Your task to perform on an android device: toggle wifi Image 0: 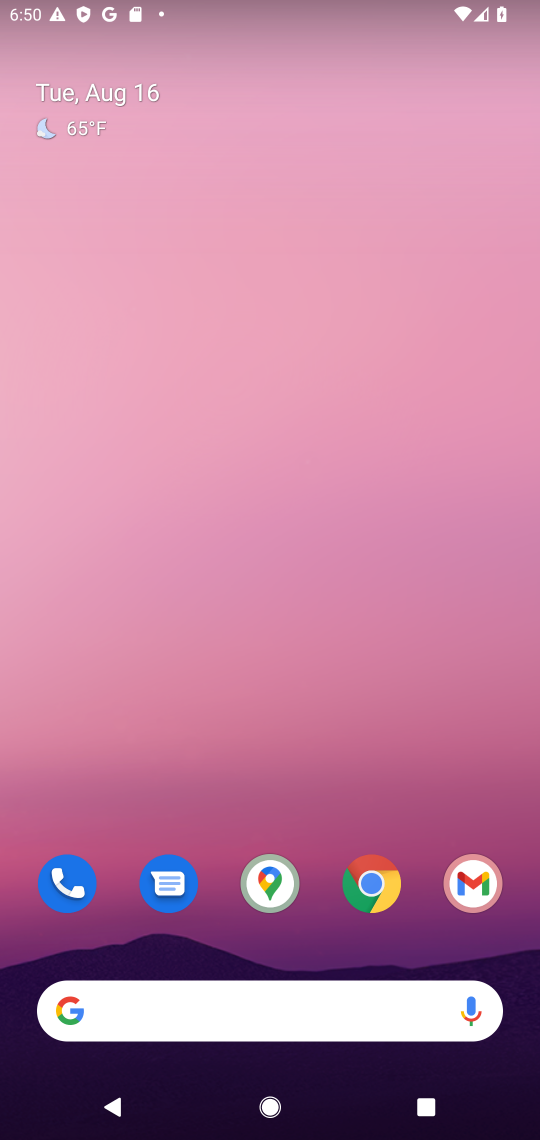
Step 0: drag from (257, 994) to (282, 126)
Your task to perform on an android device: toggle wifi Image 1: 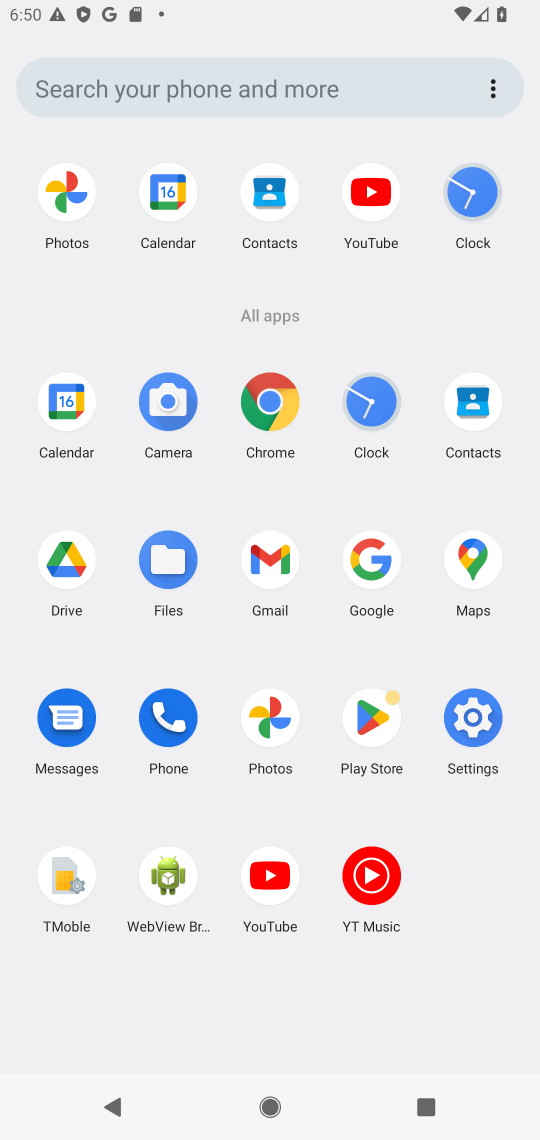
Step 1: click (474, 720)
Your task to perform on an android device: toggle wifi Image 2: 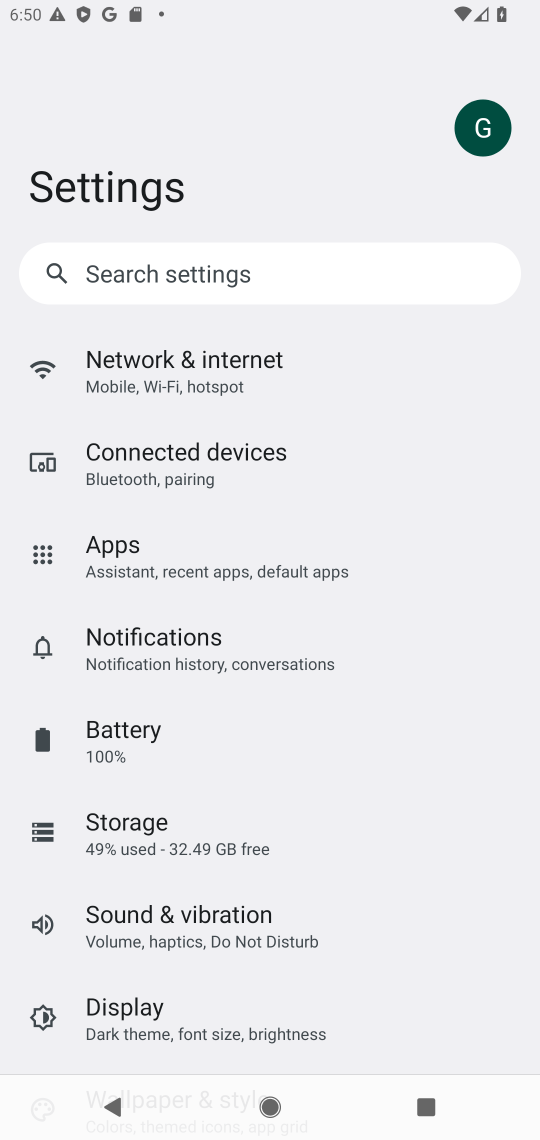
Step 2: click (208, 386)
Your task to perform on an android device: toggle wifi Image 3: 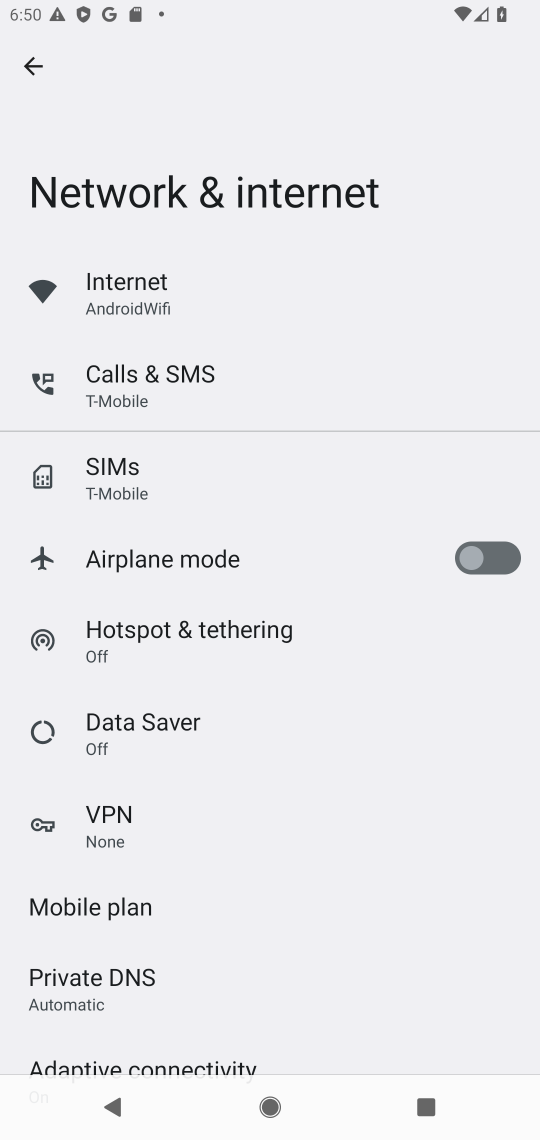
Step 3: click (151, 291)
Your task to perform on an android device: toggle wifi Image 4: 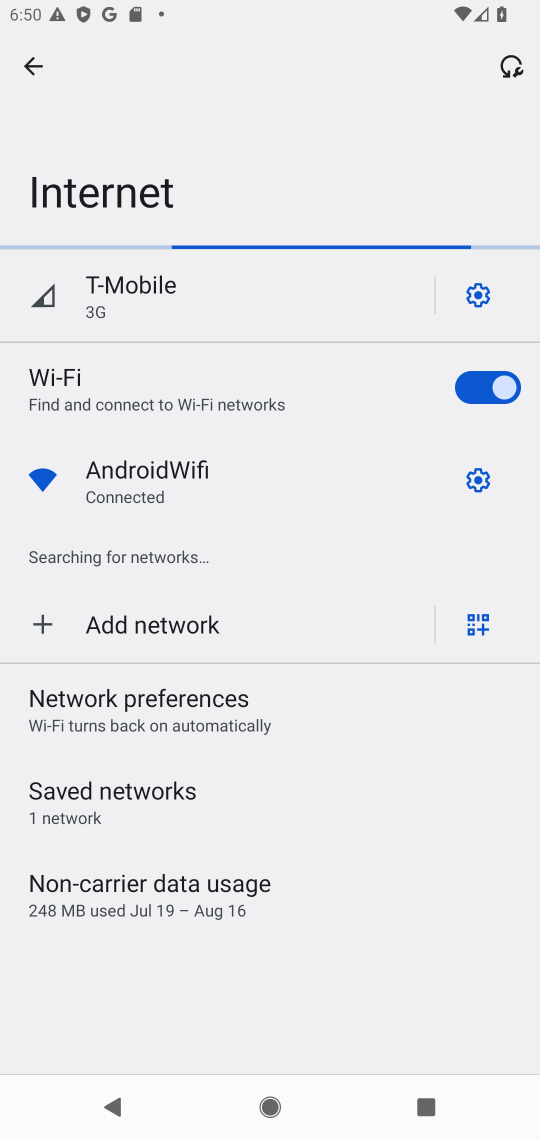
Step 4: click (487, 391)
Your task to perform on an android device: toggle wifi Image 5: 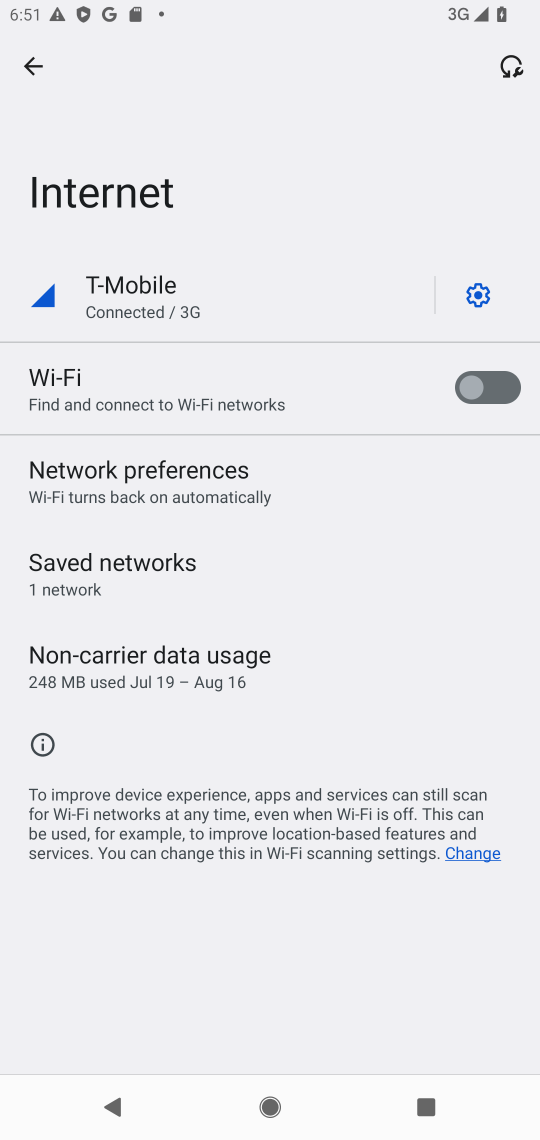
Step 5: task complete